Your task to perform on an android device: open sync settings in chrome Image 0: 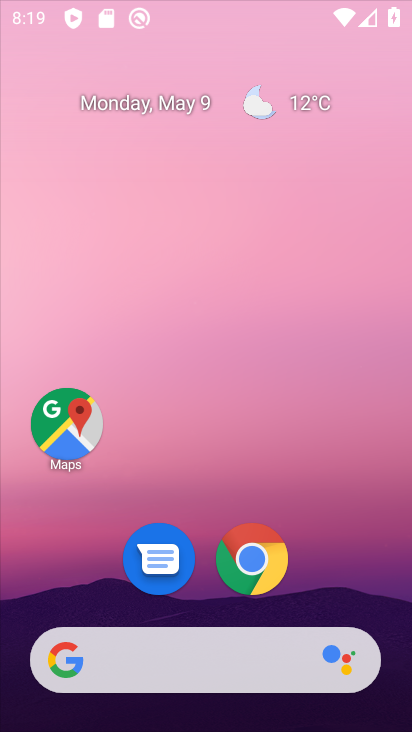
Step 0: drag from (352, 588) to (188, 0)
Your task to perform on an android device: open sync settings in chrome Image 1: 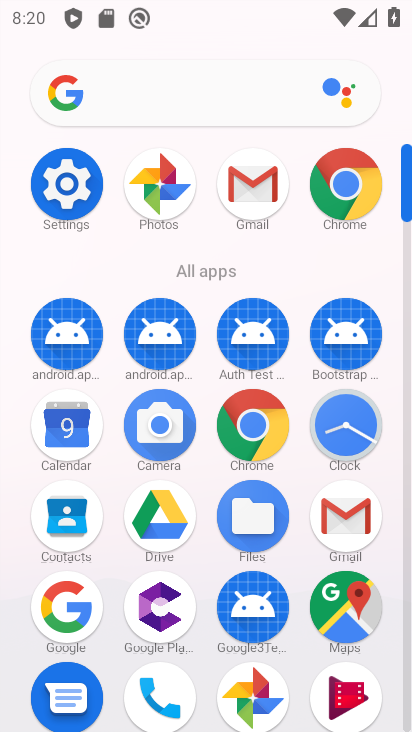
Step 1: click (348, 188)
Your task to perform on an android device: open sync settings in chrome Image 2: 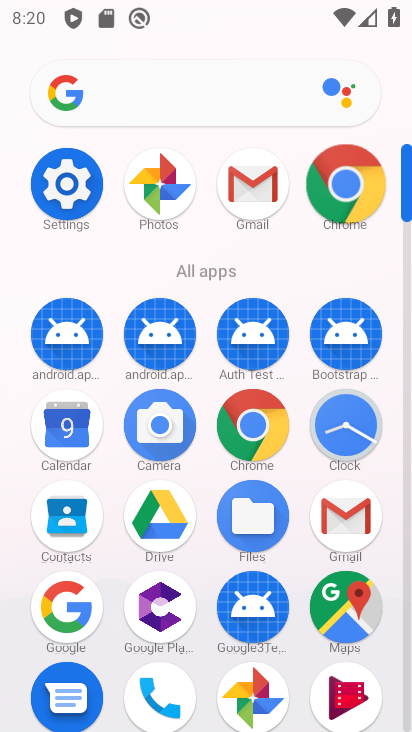
Step 2: click (345, 190)
Your task to perform on an android device: open sync settings in chrome Image 3: 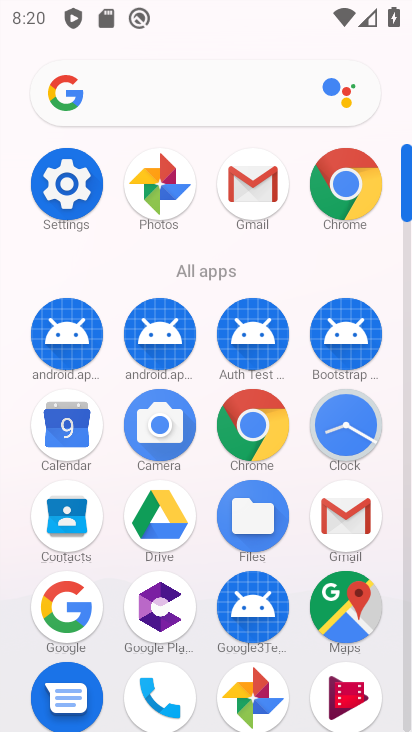
Step 3: click (340, 189)
Your task to perform on an android device: open sync settings in chrome Image 4: 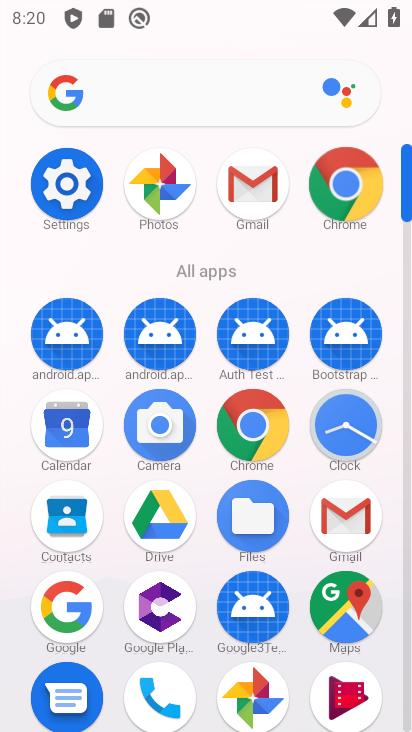
Step 4: click (340, 189)
Your task to perform on an android device: open sync settings in chrome Image 5: 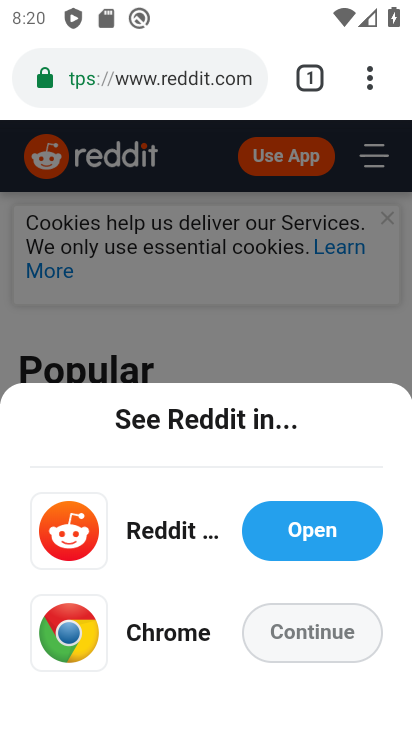
Step 5: click (301, 330)
Your task to perform on an android device: open sync settings in chrome Image 6: 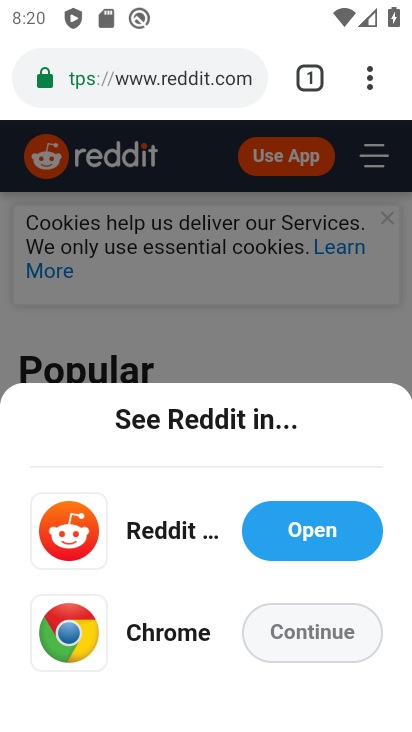
Step 6: click (306, 332)
Your task to perform on an android device: open sync settings in chrome Image 7: 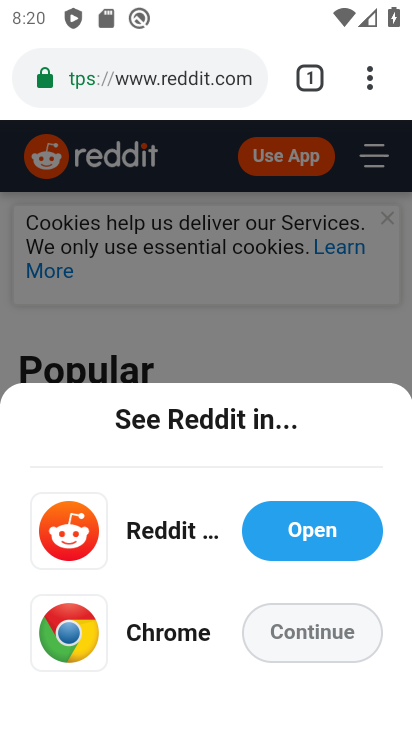
Step 7: click (306, 332)
Your task to perform on an android device: open sync settings in chrome Image 8: 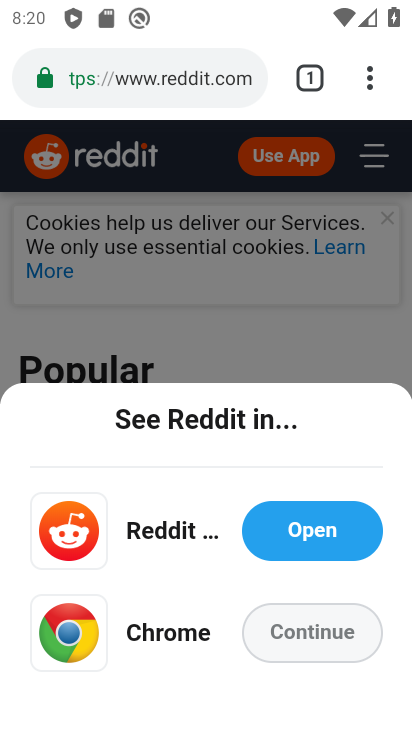
Step 8: click (309, 332)
Your task to perform on an android device: open sync settings in chrome Image 9: 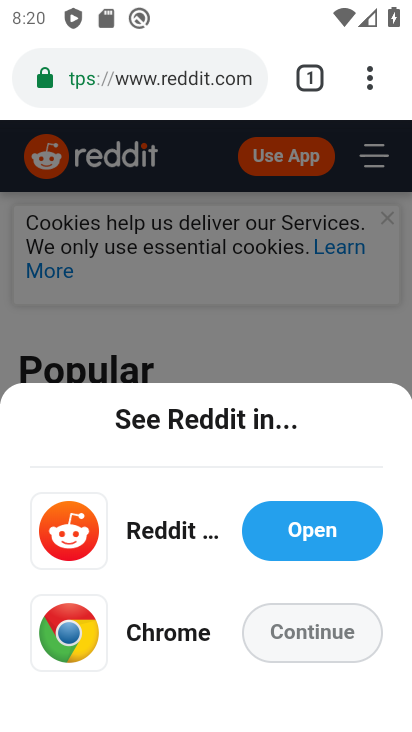
Step 9: click (331, 345)
Your task to perform on an android device: open sync settings in chrome Image 10: 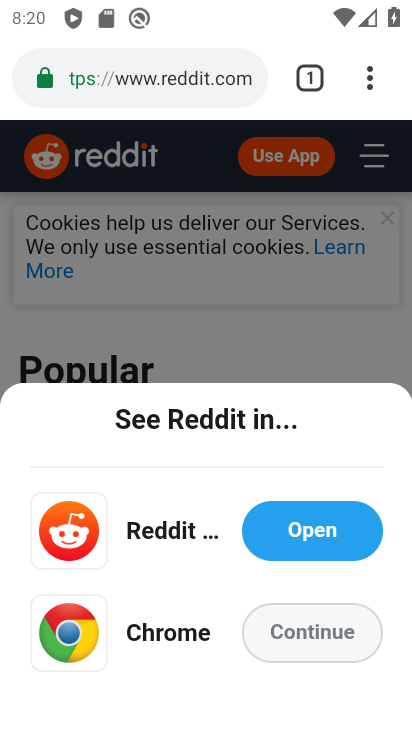
Step 10: drag from (366, 83) to (83, 611)
Your task to perform on an android device: open sync settings in chrome Image 11: 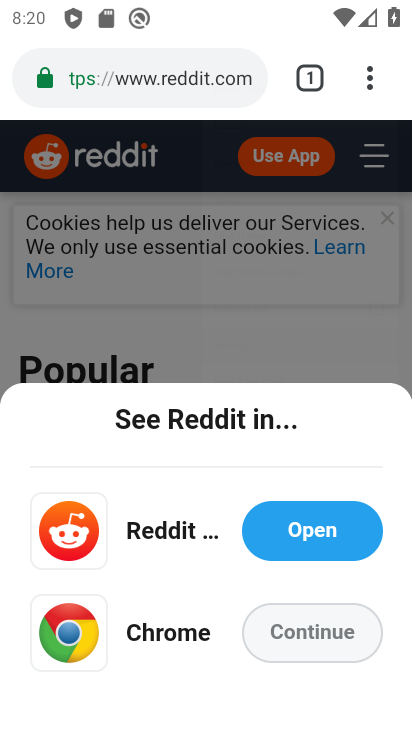
Step 11: click (83, 611)
Your task to perform on an android device: open sync settings in chrome Image 12: 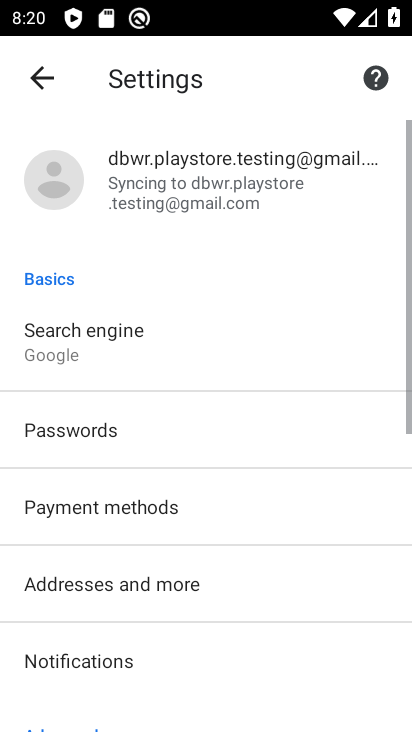
Step 12: drag from (164, 570) to (151, 2)
Your task to perform on an android device: open sync settings in chrome Image 13: 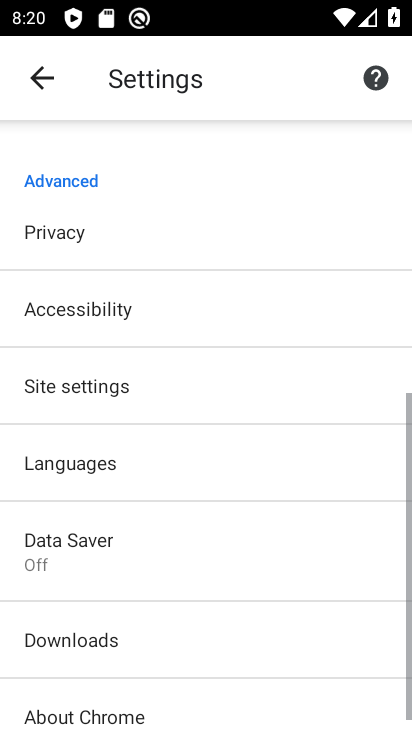
Step 13: drag from (227, 437) to (242, 7)
Your task to perform on an android device: open sync settings in chrome Image 14: 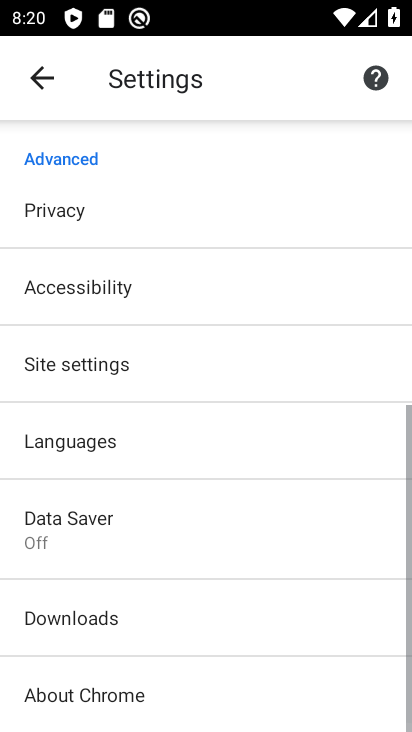
Step 14: drag from (159, 568) to (180, 132)
Your task to perform on an android device: open sync settings in chrome Image 15: 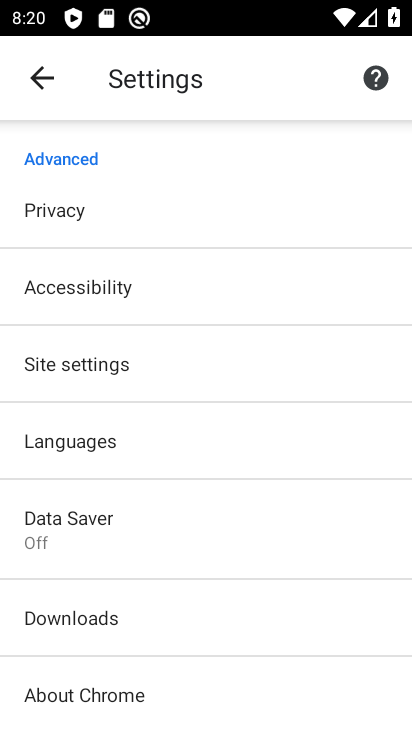
Step 15: click (70, 375)
Your task to perform on an android device: open sync settings in chrome Image 16: 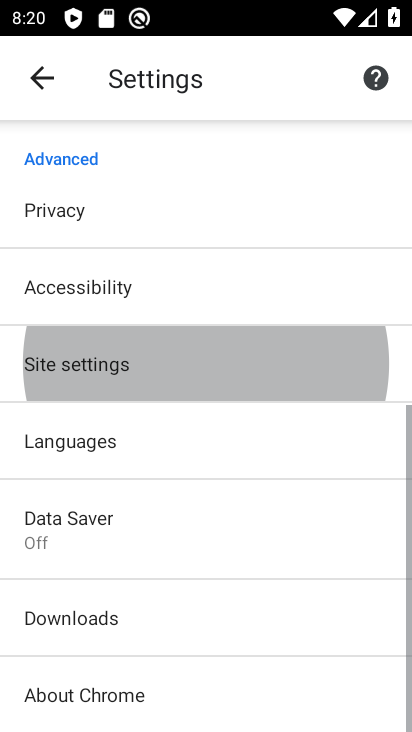
Step 16: click (64, 367)
Your task to perform on an android device: open sync settings in chrome Image 17: 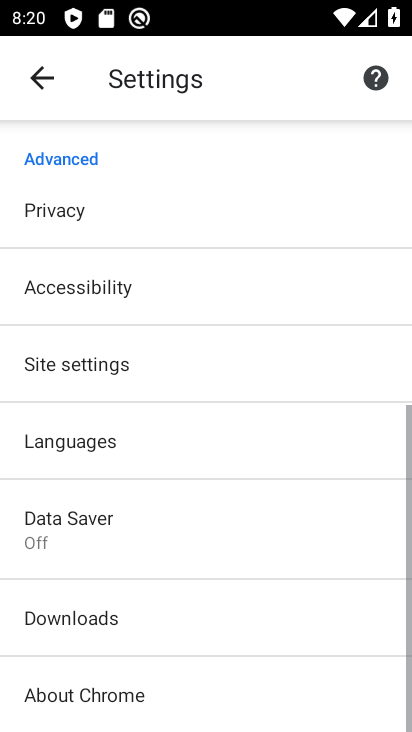
Step 17: click (64, 365)
Your task to perform on an android device: open sync settings in chrome Image 18: 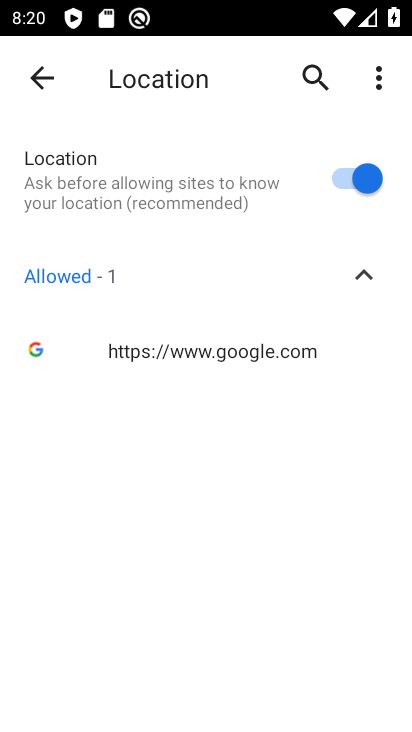
Step 18: click (36, 74)
Your task to perform on an android device: open sync settings in chrome Image 19: 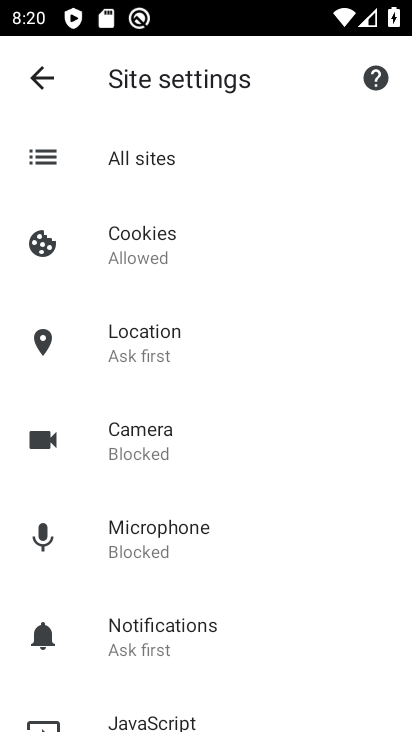
Step 19: drag from (242, 597) to (209, 183)
Your task to perform on an android device: open sync settings in chrome Image 20: 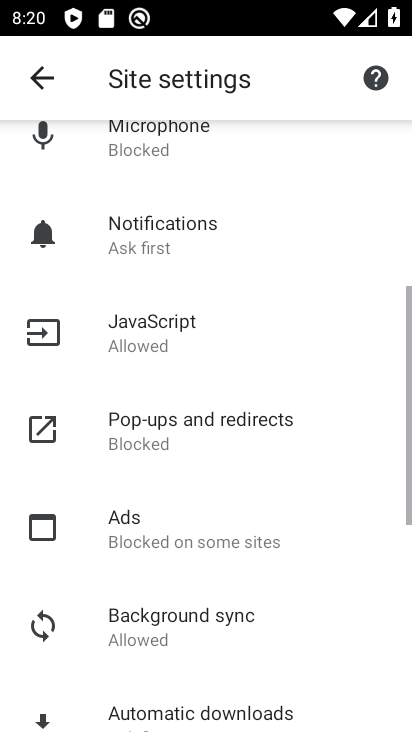
Step 20: drag from (192, 460) to (224, 155)
Your task to perform on an android device: open sync settings in chrome Image 21: 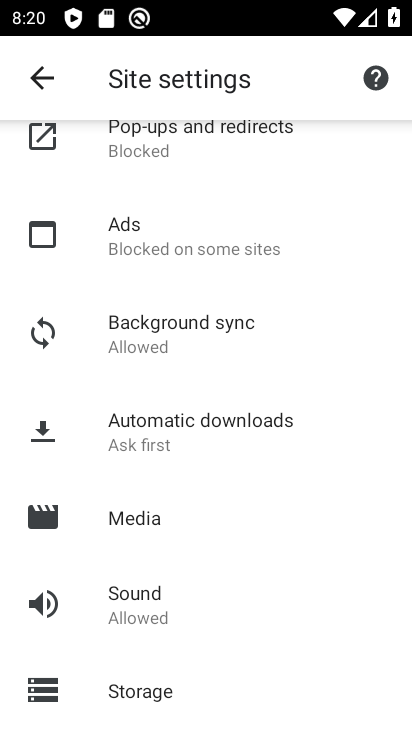
Step 21: click (149, 349)
Your task to perform on an android device: open sync settings in chrome Image 22: 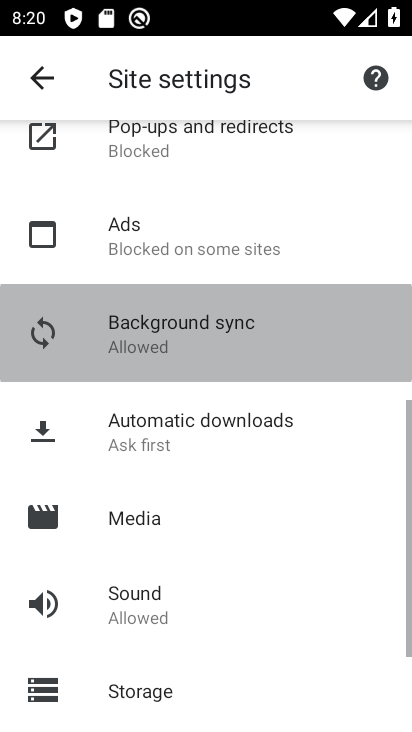
Step 22: click (150, 346)
Your task to perform on an android device: open sync settings in chrome Image 23: 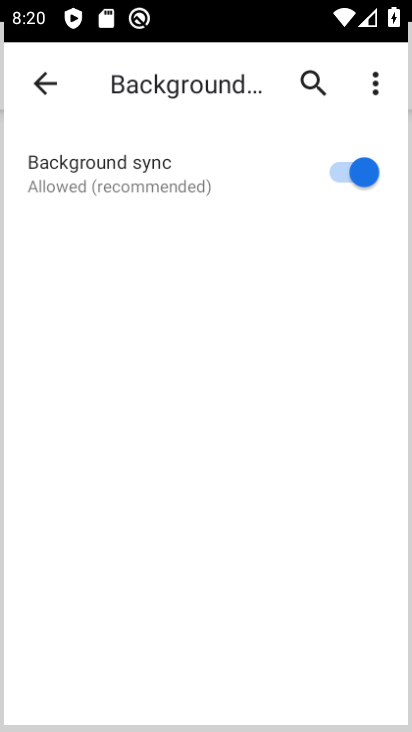
Step 23: click (151, 346)
Your task to perform on an android device: open sync settings in chrome Image 24: 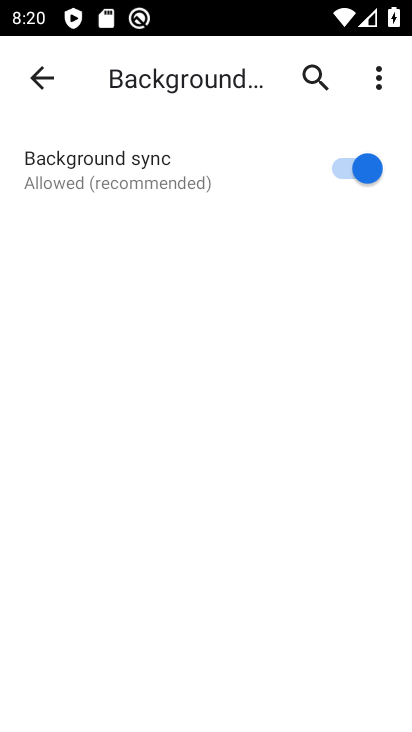
Step 24: click (152, 346)
Your task to perform on an android device: open sync settings in chrome Image 25: 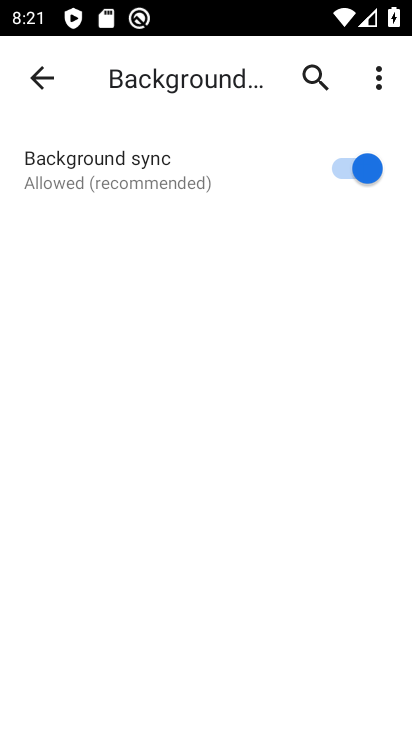
Step 25: task complete